Your task to perform on an android device: change the upload size in google photos Image 0: 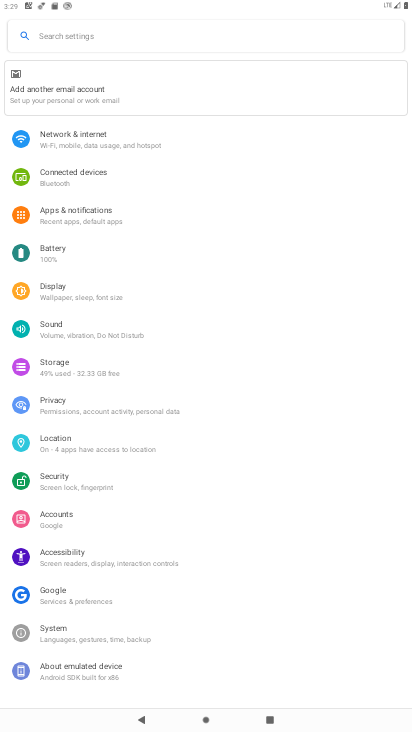
Step 0: press home button
Your task to perform on an android device: change the upload size in google photos Image 1: 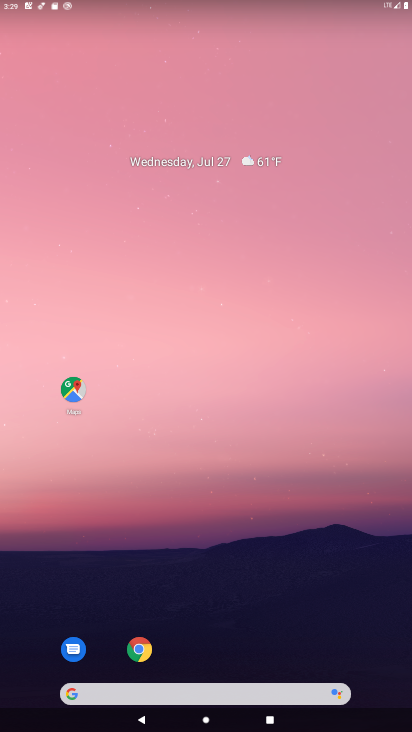
Step 1: drag from (190, 380) to (241, 123)
Your task to perform on an android device: change the upload size in google photos Image 2: 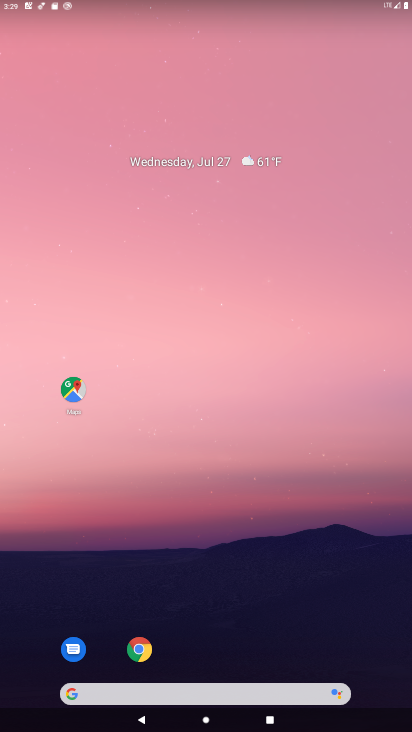
Step 2: drag from (195, 430) to (178, 24)
Your task to perform on an android device: change the upload size in google photos Image 3: 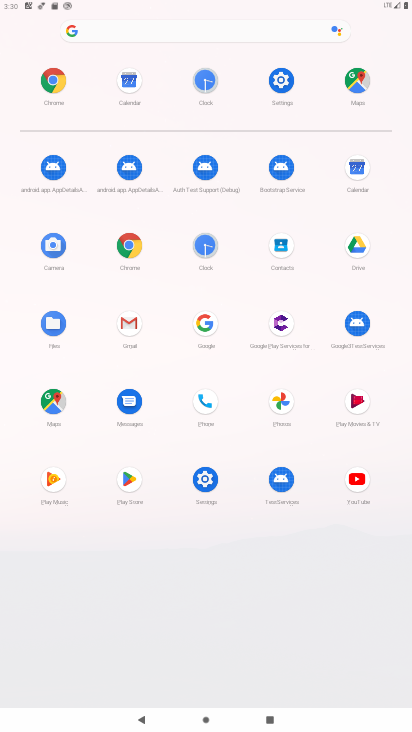
Step 3: click (282, 397)
Your task to perform on an android device: change the upload size in google photos Image 4: 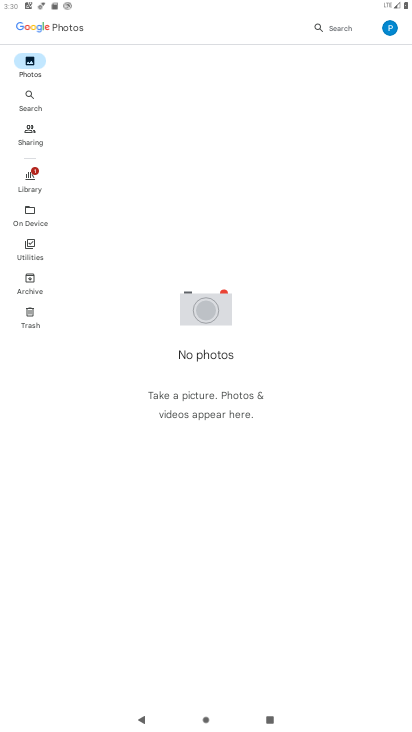
Step 4: click (393, 28)
Your task to perform on an android device: change the upload size in google photos Image 5: 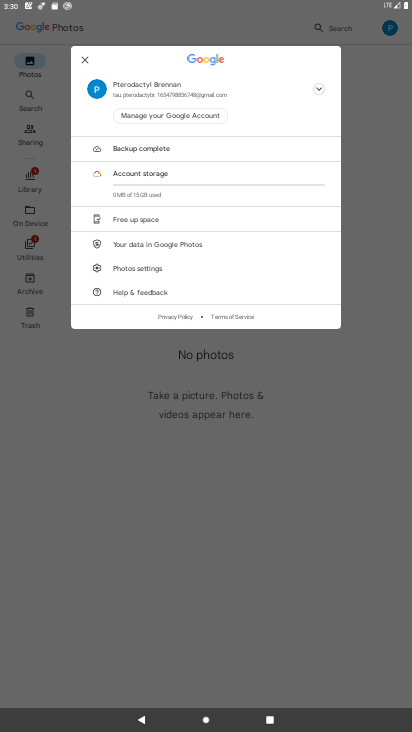
Step 5: click (148, 265)
Your task to perform on an android device: change the upload size in google photos Image 6: 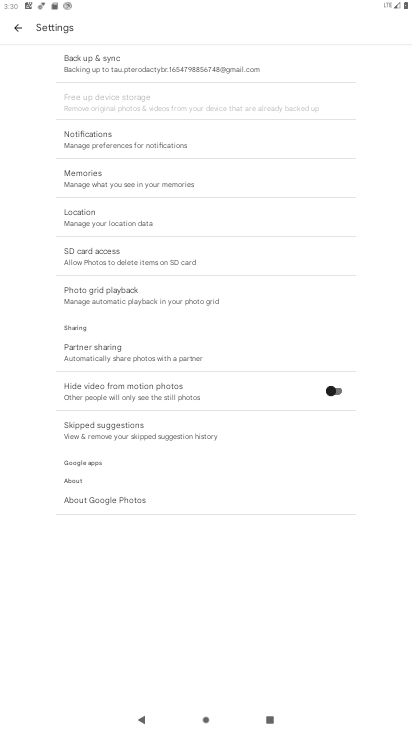
Step 6: click (144, 68)
Your task to perform on an android device: change the upload size in google photos Image 7: 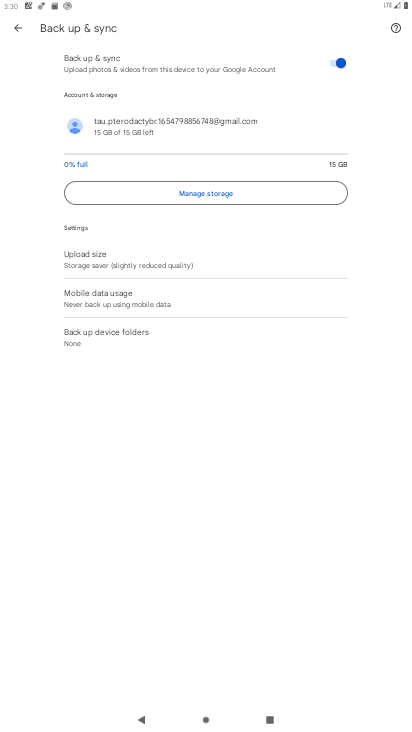
Step 7: click (109, 255)
Your task to perform on an android device: change the upload size in google photos Image 8: 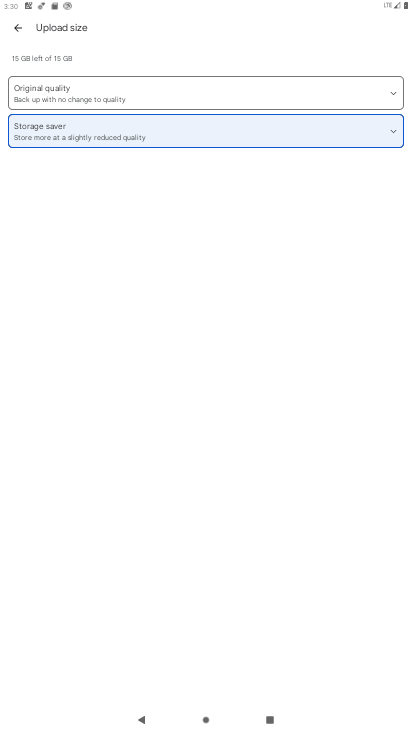
Step 8: click (122, 90)
Your task to perform on an android device: change the upload size in google photos Image 9: 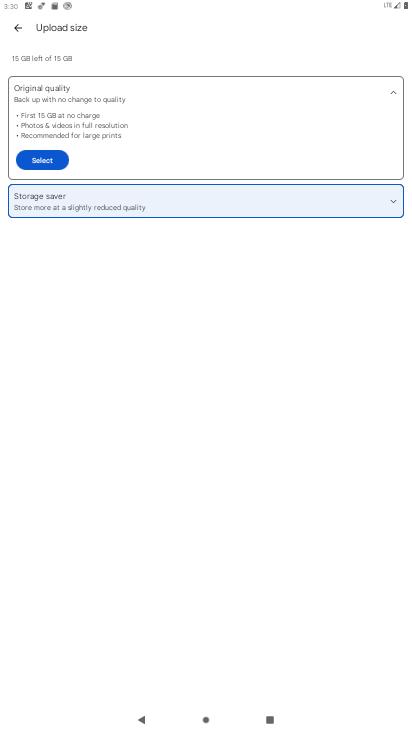
Step 9: click (35, 158)
Your task to perform on an android device: change the upload size in google photos Image 10: 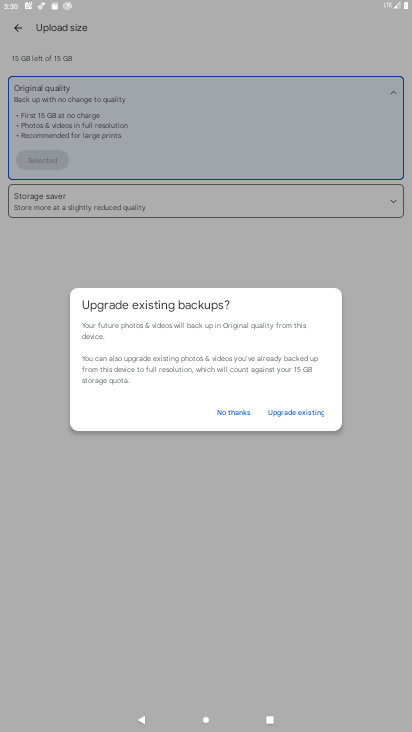
Step 10: click (246, 412)
Your task to perform on an android device: change the upload size in google photos Image 11: 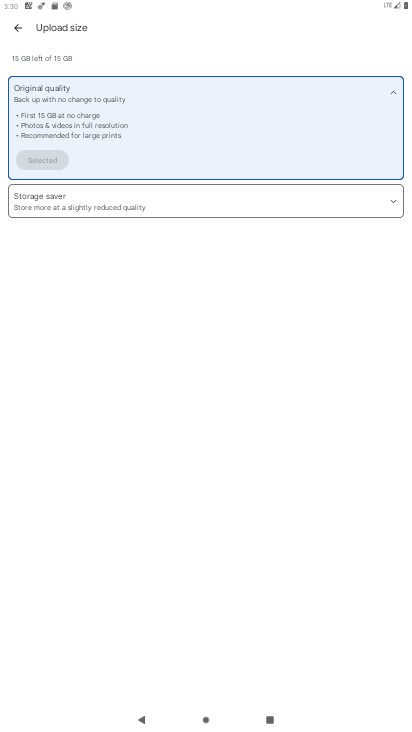
Step 11: task complete